Your task to perform on an android device: turn on airplane mode Image 0: 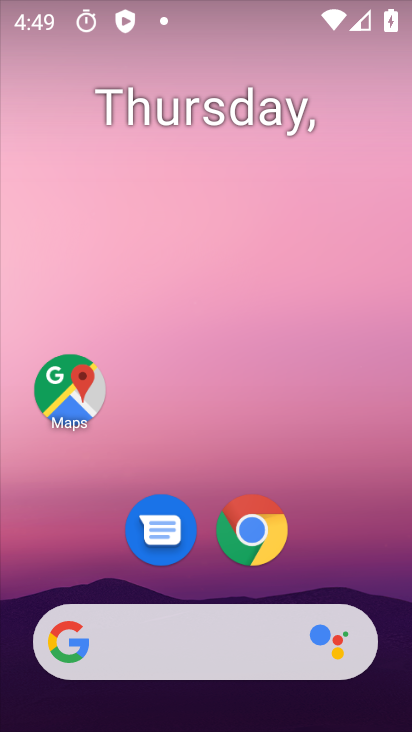
Step 0: drag from (323, 600) to (326, 54)
Your task to perform on an android device: turn on airplane mode Image 1: 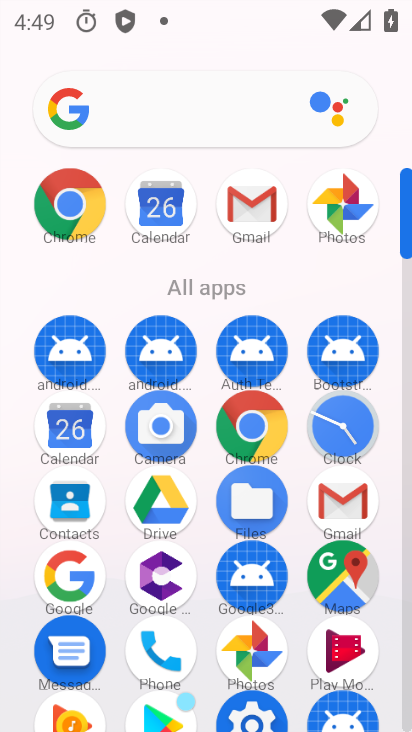
Step 1: drag from (114, 626) to (129, 127)
Your task to perform on an android device: turn on airplane mode Image 2: 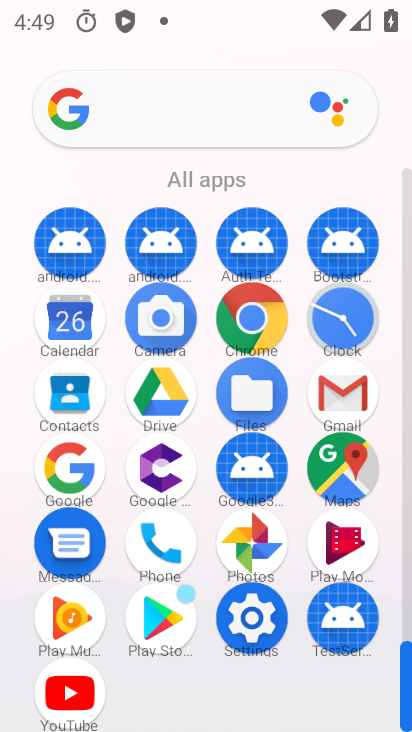
Step 2: click (249, 613)
Your task to perform on an android device: turn on airplane mode Image 3: 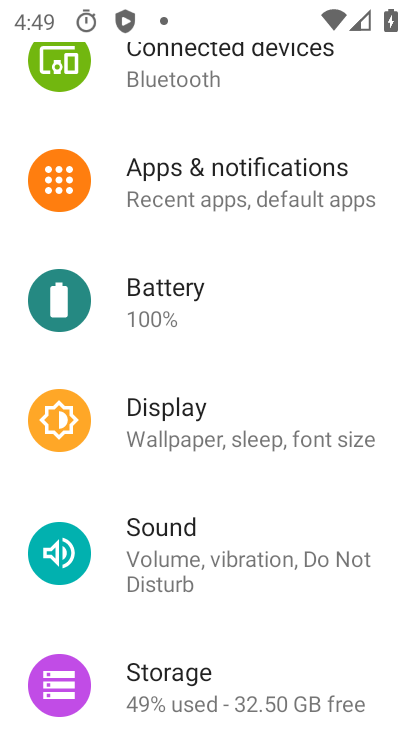
Step 3: drag from (256, 103) to (308, 723)
Your task to perform on an android device: turn on airplane mode Image 4: 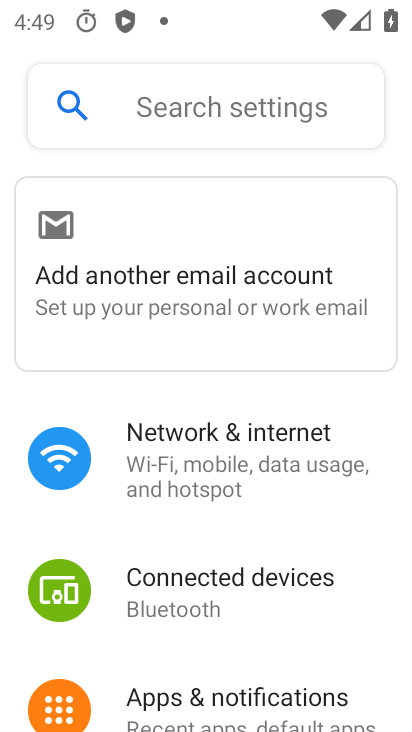
Step 4: click (313, 484)
Your task to perform on an android device: turn on airplane mode Image 5: 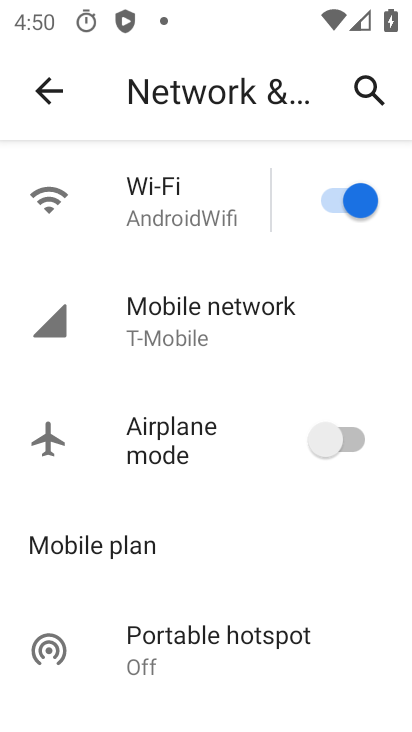
Step 5: click (353, 440)
Your task to perform on an android device: turn on airplane mode Image 6: 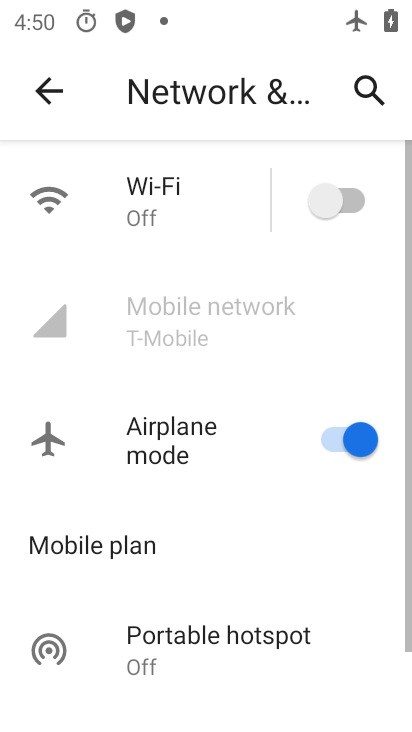
Step 6: task complete